Your task to perform on an android device: change timer sound Image 0: 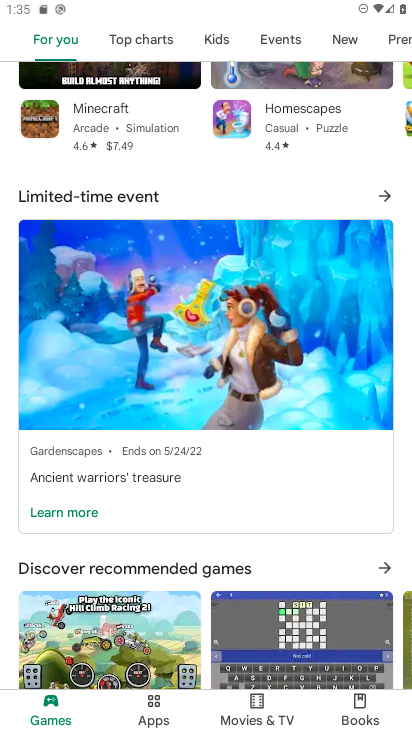
Step 0: press home button
Your task to perform on an android device: change timer sound Image 1: 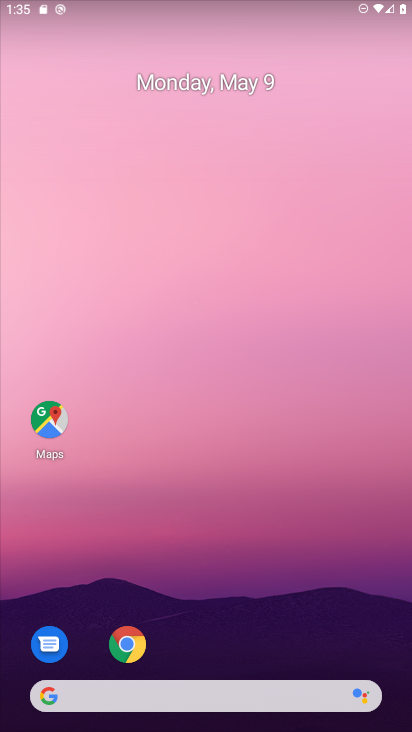
Step 1: drag from (265, 591) to (279, 63)
Your task to perform on an android device: change timer sound Image 2: 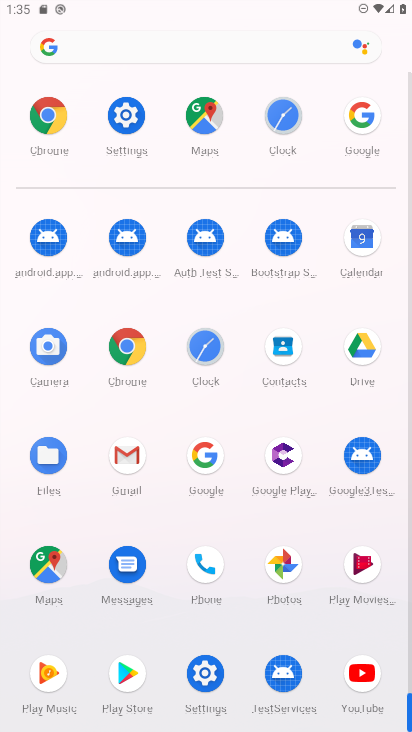
Step 2: click (197, 370)
Your task to perform on an android device: change timer sound Image 3: 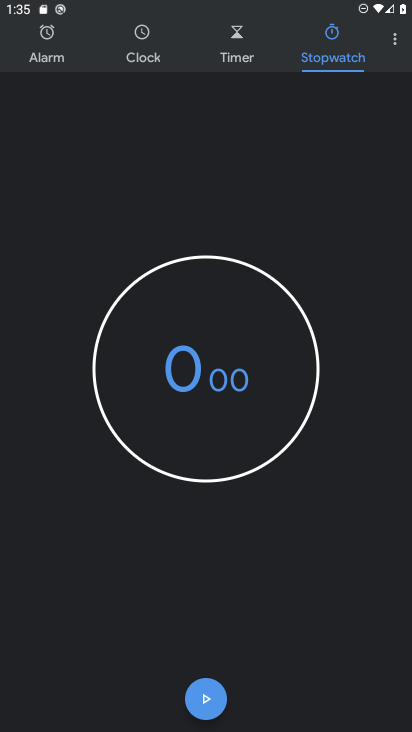
Step 3: click (394, 45)
Your task to perform on an android device: change timer sound Image 4: 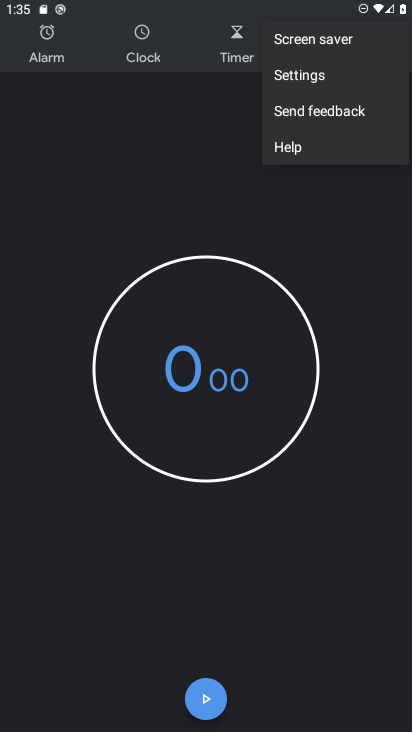
Step 4: click (315, 84)
Your task to perform on an android device: change timer sound Image 5: 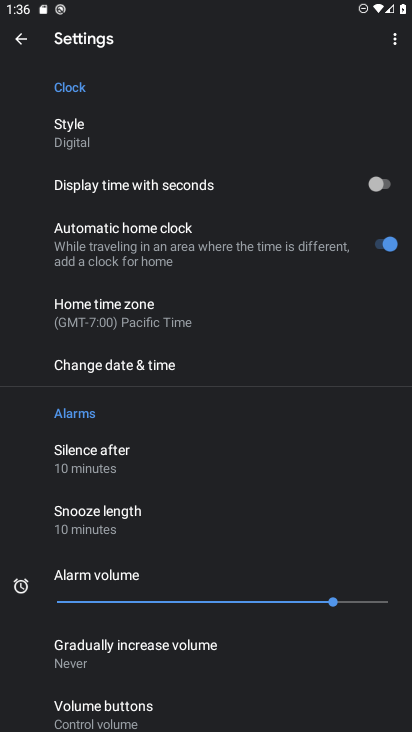
Step 5: drag from (133, 556) to (187, 138)
Your task to perform on an android device: change timer sound Image 6: 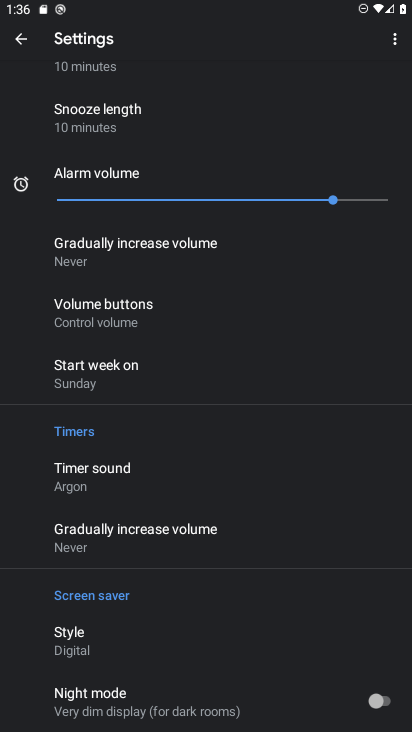
Step 6: drag from (149, 501) to (199, 194)
Your task to perform on an android device: change timer sound Image 7: 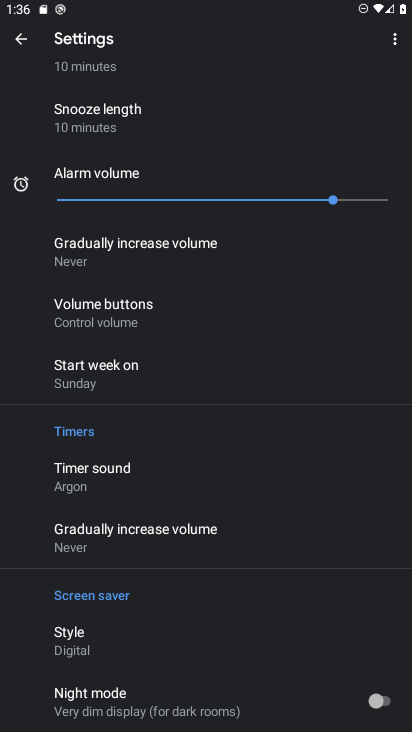
Step 7: click (56, 486)
Your task to perform on an android device: change timer sound Image 8: 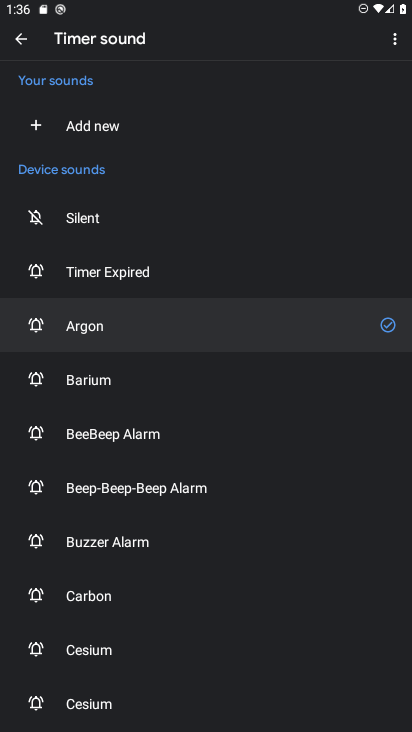
Step 8: click (45, 411)
Your task to perform on an android device: change timer sound Image 9: 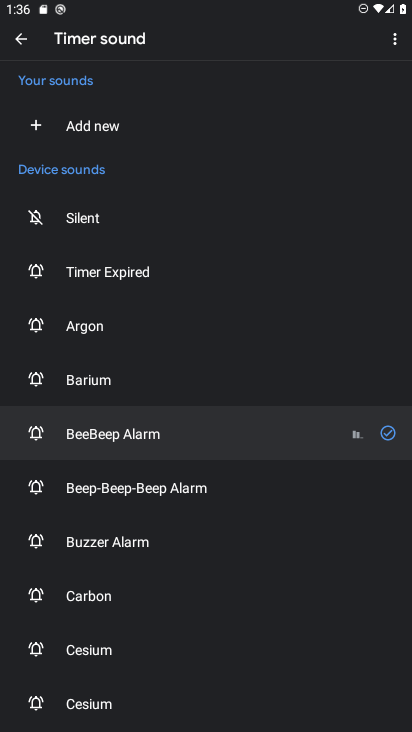
Step 9: task complete